Your task to perform on an android device: open device folders in google photos Image 0: 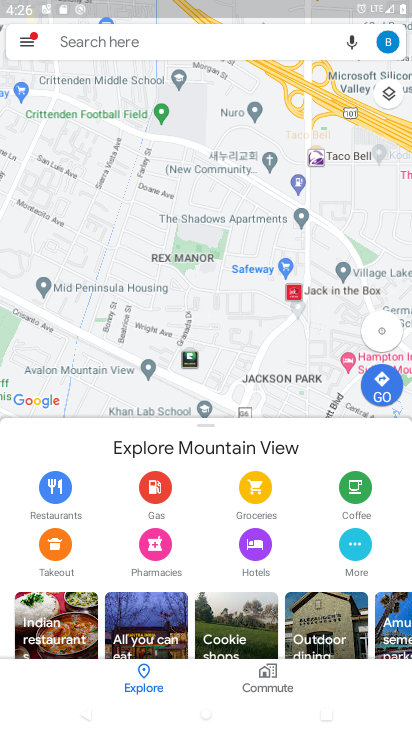
Step 0: press home button
Your task to perform on an android device: open device folders in google photos Image 1: 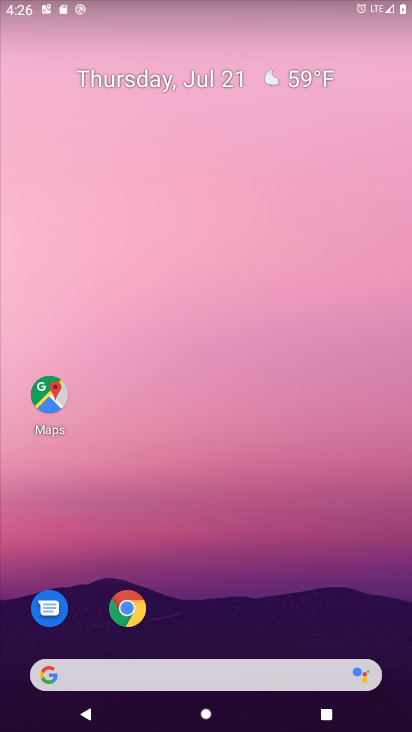
Step 1: drag from (279, 669) to (316, 0)
Your task to perform on an android device: open device folders in google photos Image 2: 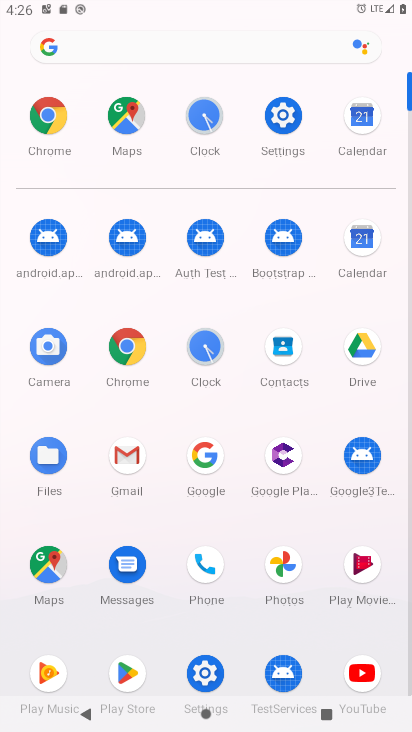
Step 2: click (281, 564)
Your task to perform on an android device: open device folders in google photos Image 3: 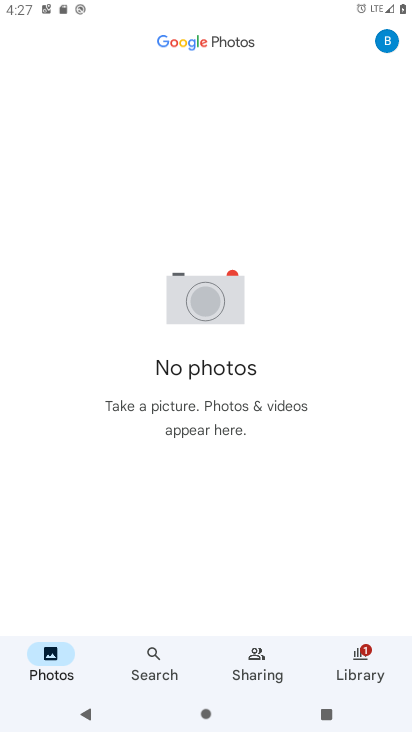
Step 3: click (386, 47)
Your task to perform on an android device: open device folders in google photos Image 4: 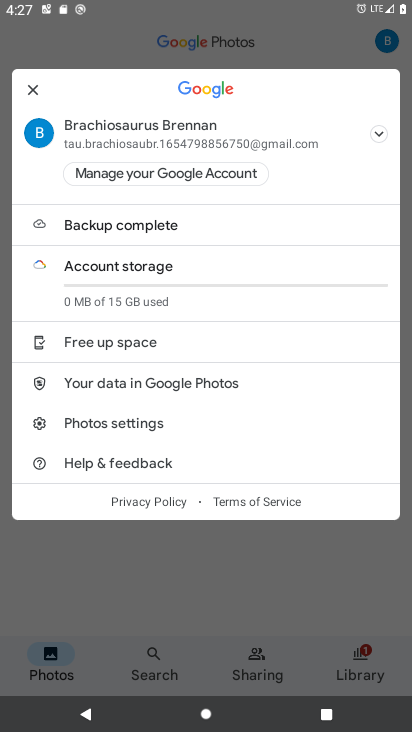
Step 4: click (224, 558)
Your task to perform on an android device: open device folders in google photos Image 5: 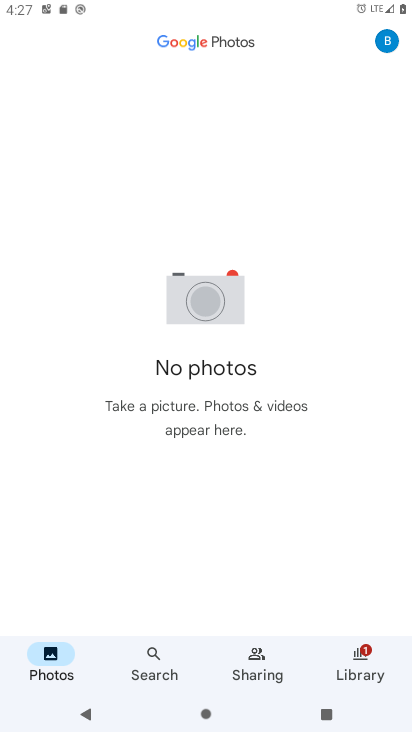
Step 5: task complete